Your task to perform on an android device: star an email in the gmail app Image 0: 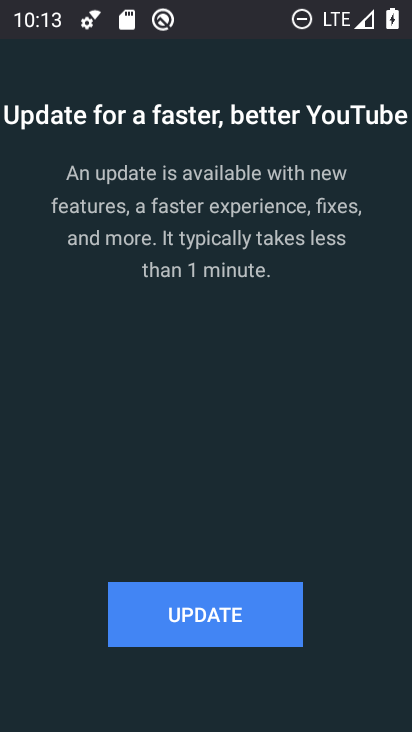
Step 0: press back button
Your task to perform on an android device: star an email in the gmail app Image 1: 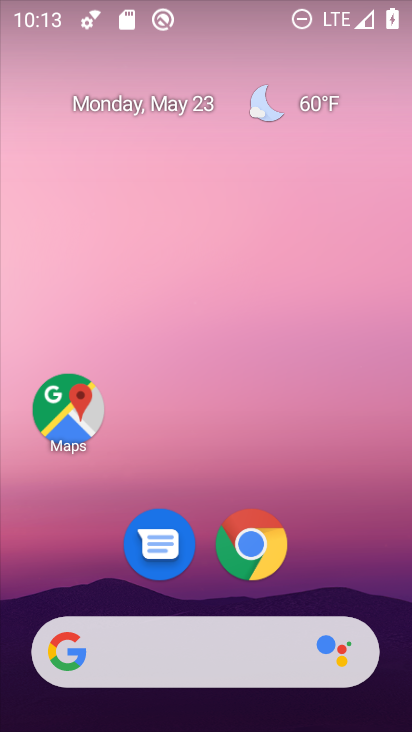
Step 1: drag from (311, 596) to (203, 226)
Your task to perform on an android device: star an email in the gmail app Image 2: 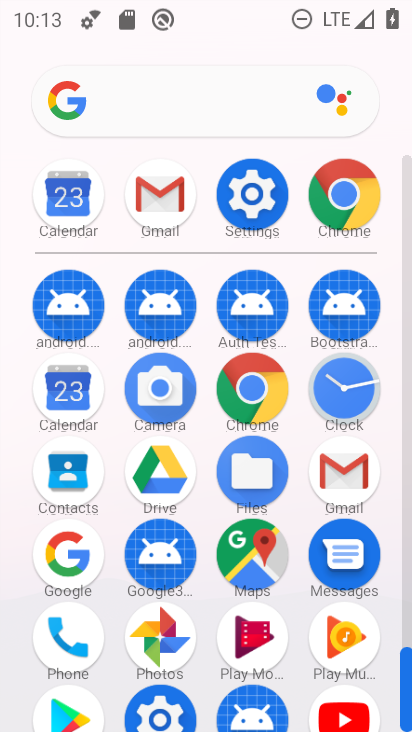
Step 2: click (343, 472)
Your task to perform on an android device: star an email in the gmail app Image 3: 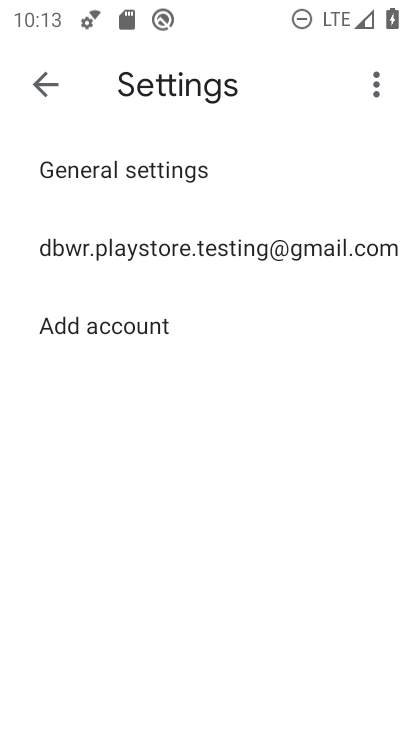
Step 3: press back button
Your task to perform on an android device: star an email in the gmail app Image 4: 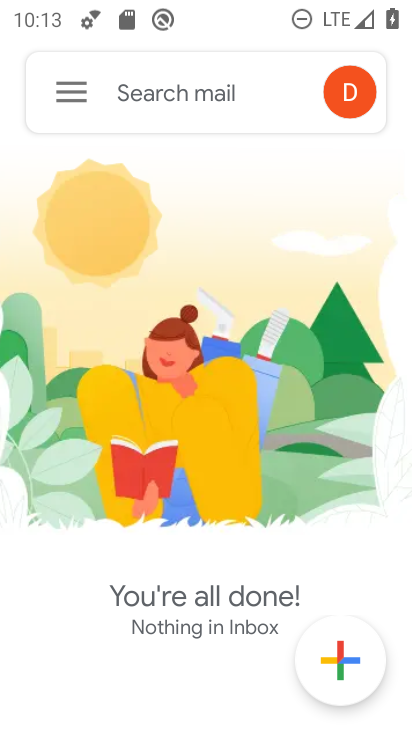
Step 4: click (78, 97)
Your task to perform on an android device: star an email in the gmail app Image 5: 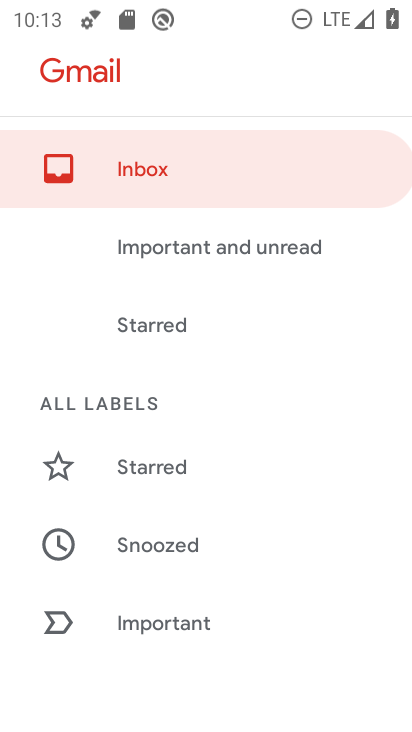
Step 5: task complete